Your task to perform on an android device: Open the stopwatch Image 0: 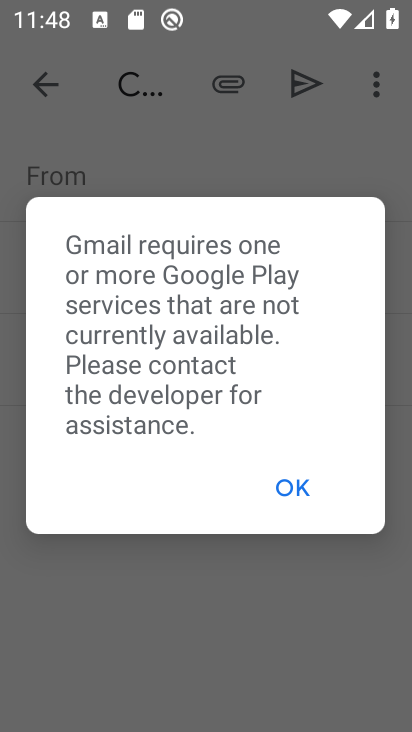
Step 0: press home button
Your task to perform on an android device: Open the stopwatch Image 1: 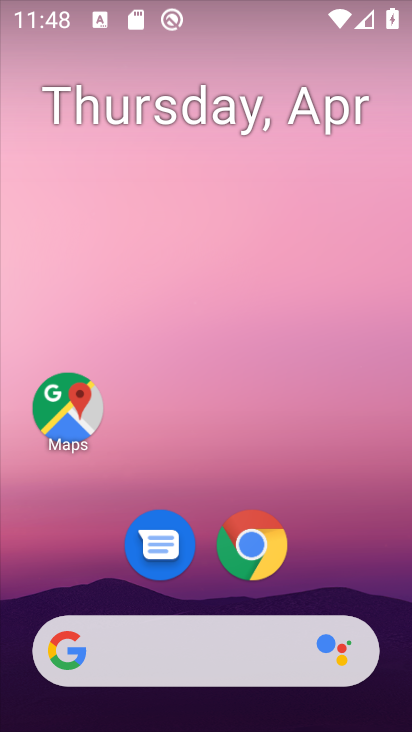
Step 1: drag from (207, 480) to (212, 2)
Your task to perform on an android device: Open the stopwatch Image 2: 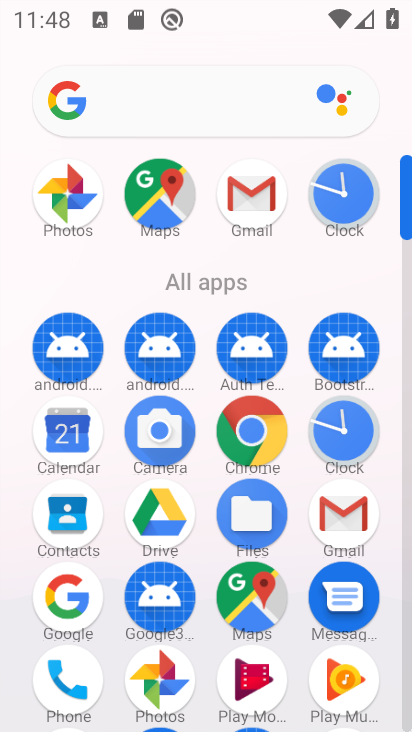
Step 2: click (327, 446)
Your task to perform on an android device: Open the stopwatch Image 3: 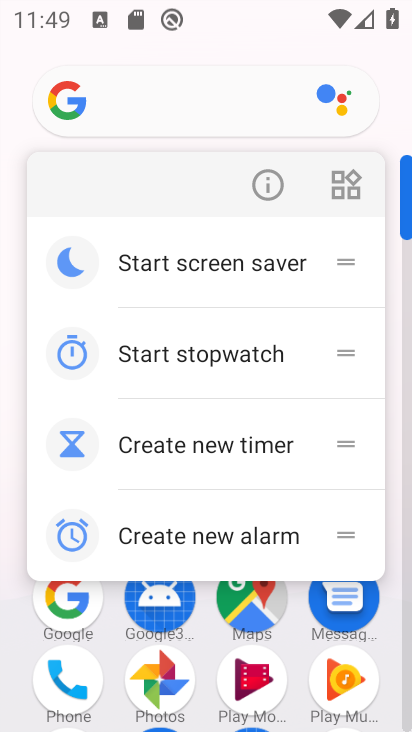
Step 3: click (267, 177)
Your task to perform on an android device: Open the stopwatch Image 4: 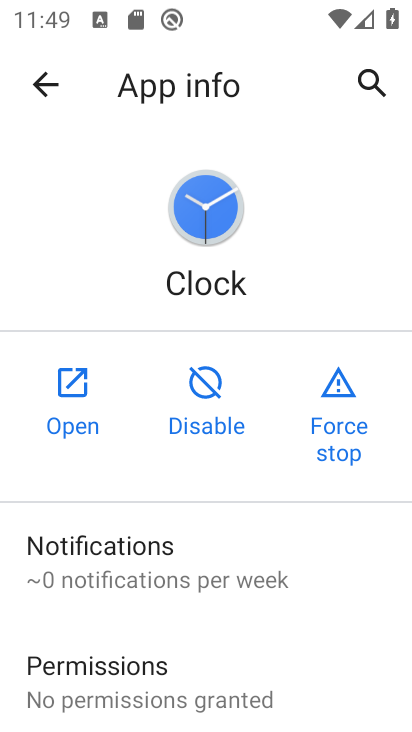
Step 4: click (58, 406)
Your task to perform on an android device: Open the stopwatch Image 5: 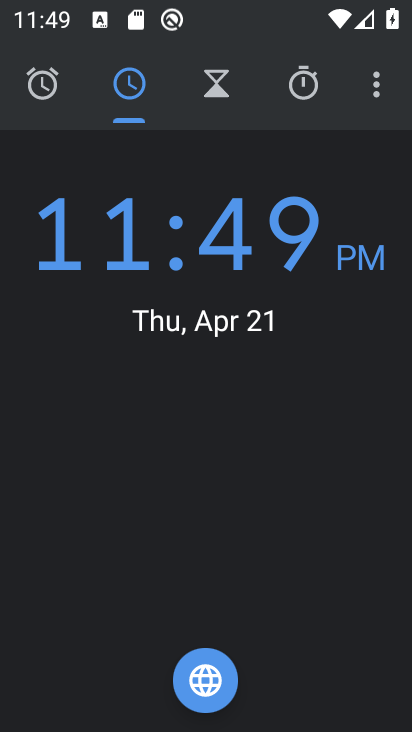
Step 5: click (313, 92)
Your task to perform on an android device: Open the stopwatch Image 6: 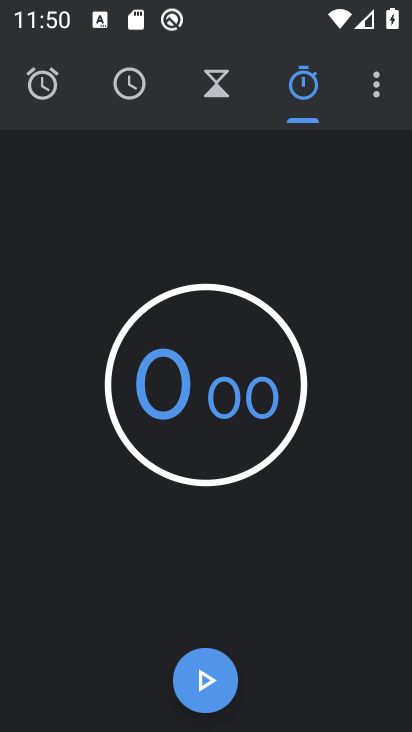
Step 6: task complete